Your task to perform on an android device: Go to battery settings Image 0: 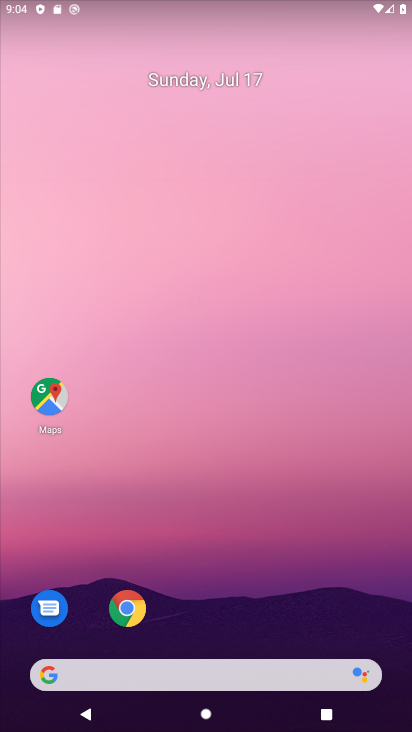
Step 0: drag from (186, 627) to (259, 50)
Your task to perform on an android device: Go to battery settings Image 1: 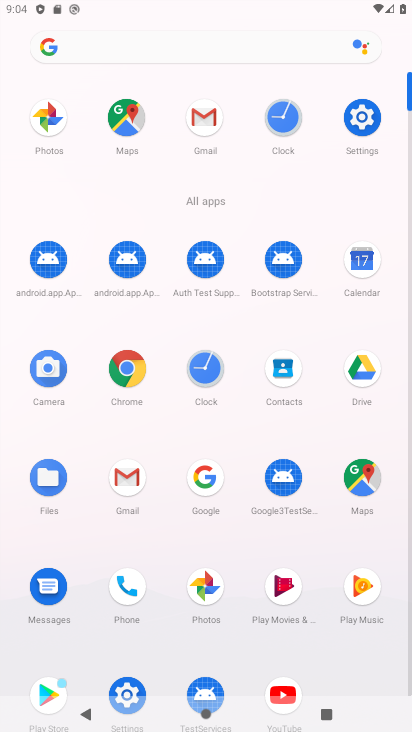
Step 1: click (118, 690)
Your task to perform on an android device: Go to battery settings Image 2: 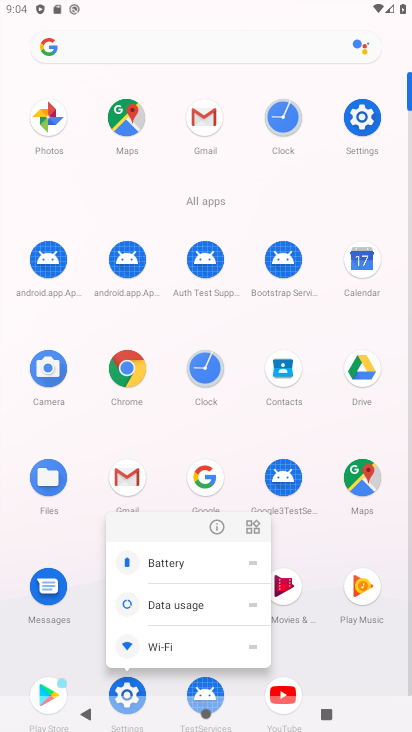
Step 2: click (117, 697)
Your task to perform on an android device: Go to battery settings Image 3: 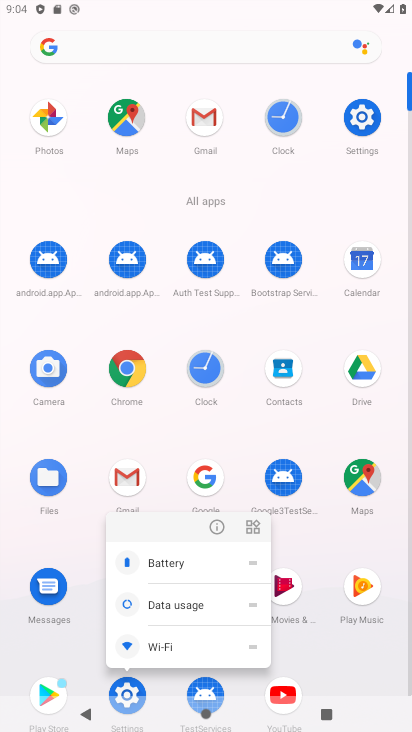
Step 3: click (131, 696)
Your task to perform on an android device: Go to battery settings Image 4: 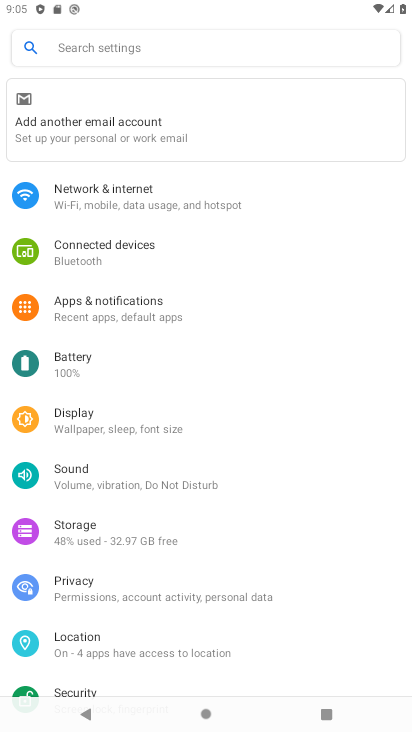
Step 4: click (117, 378)
Your task to perform on an android device: Go to battery settings Image 5: 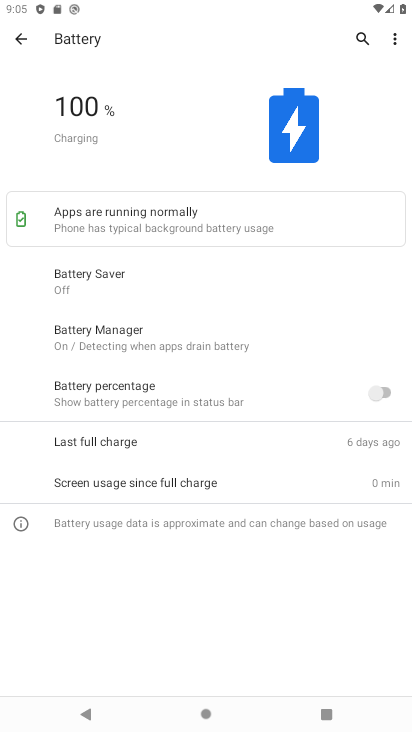
Step 5: task complete